Your task to perform on an android device: refresh tabs in the chrome app Image 0: 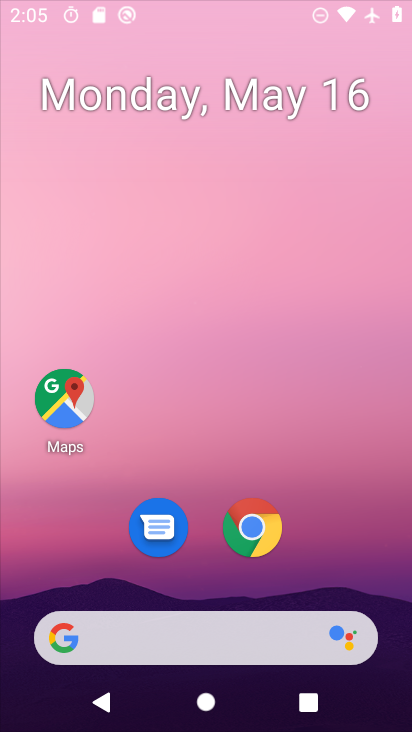
Step 0: press home button
Your task to perform on an android device: refresh tabs in the chrome app Image 1: 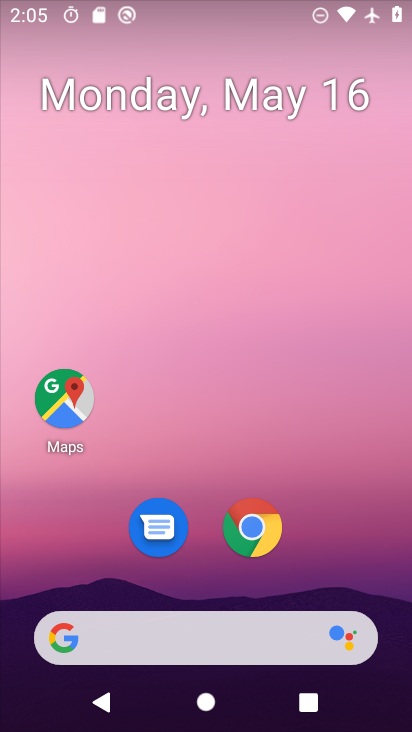
Step 1: click (255, 527)
Your task to perform on an android device: refresh tabs in the chrome app Image 2: 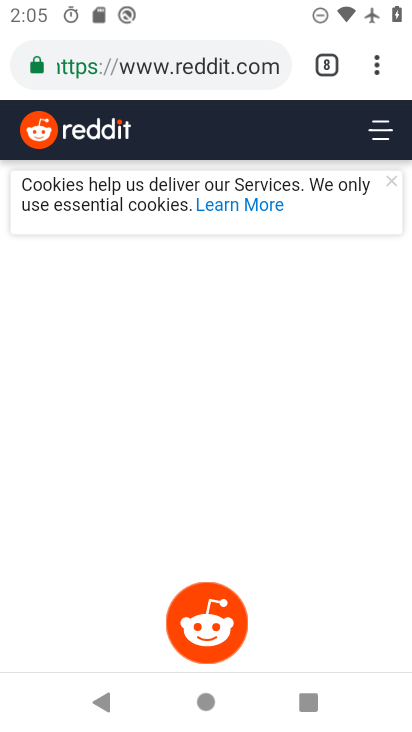
Step 2: click (372, 80)
Your task to perform on an android device: refresh tabs in the chrome app Image 3: 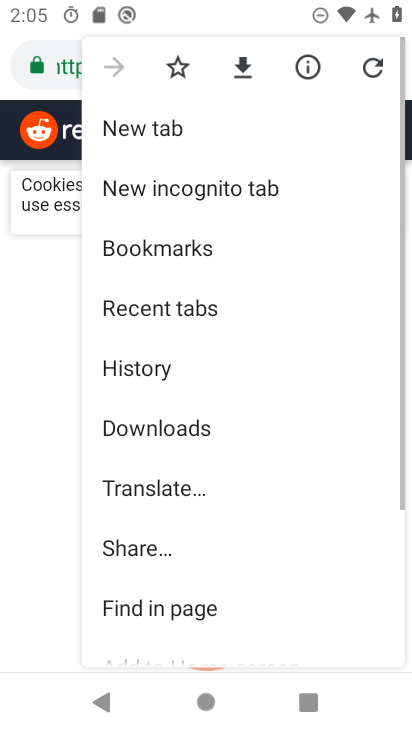
Step 3: click (369, 67)
Your task to perform on an android device: refresh tabs in the chrome app Image 4: 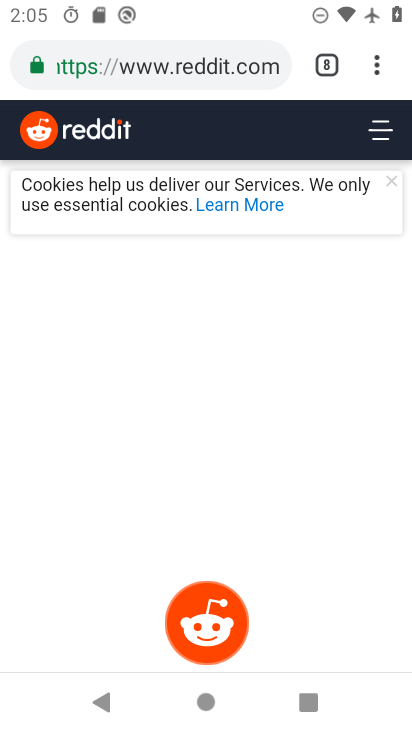
Step 4: task complete